Your task to perform on an android device: open a bookmark in the chrome app Image 0: 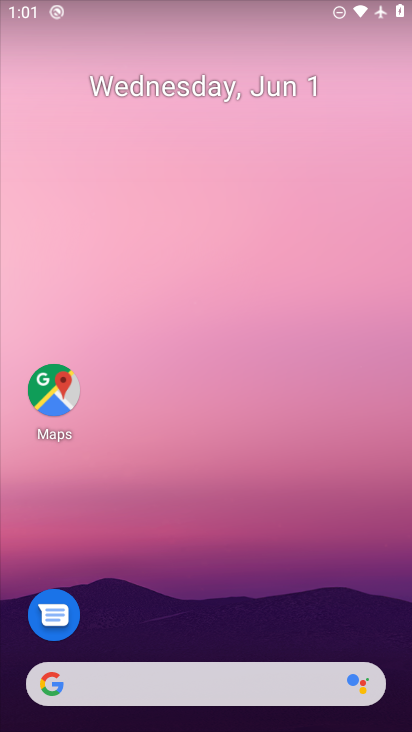
Step 0: drag from (248, 625) to (294, 59)
Your task to perform on an android device: open a bookmark in the chrome app Image 1: 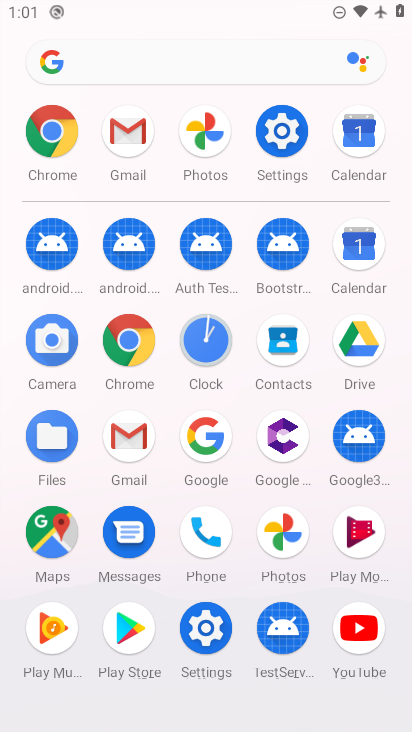
Step 1: click (127, 345)
Your task to perform on an android device: open a bookmark in the chrome app Image 2: 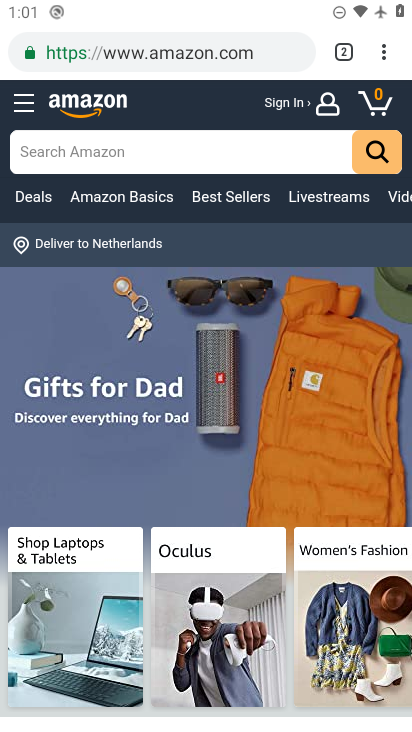
Step 2: click (382, 56)
Your task to perform on an android device: open a bookmark in the chrome app Image 3: 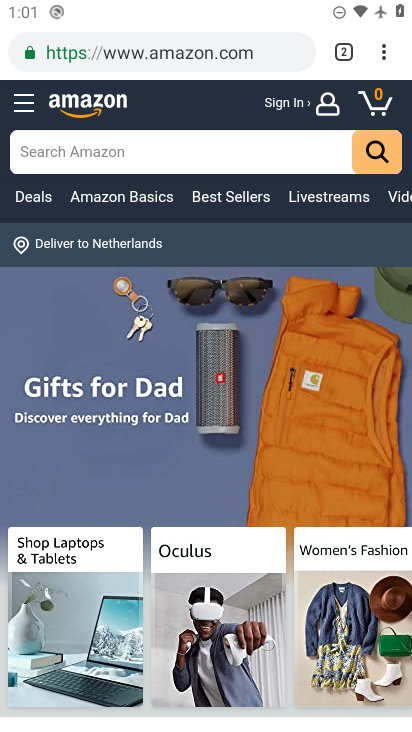
Step 3: click (385, 56)
Your task to perform on an android device: open a bookmark in the chrome app Image 4: 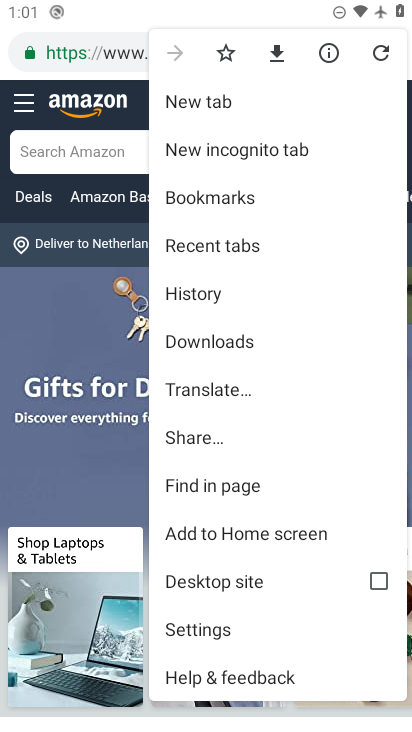
Step 4: click (230, 199)
Your task to perform on an android device: open a bookmark in the chrome app Image 5: 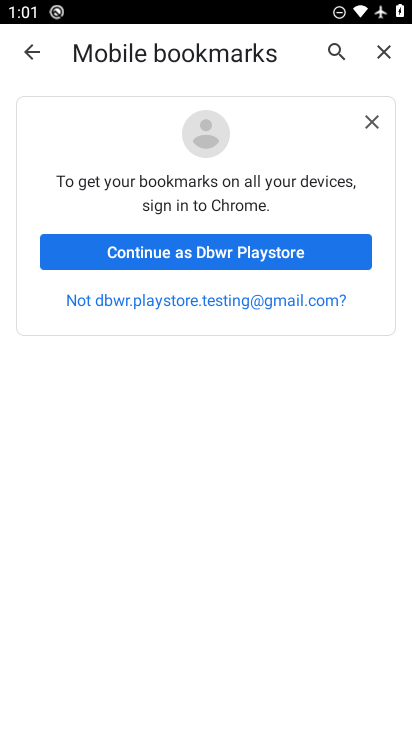
Step 5: task complete